Your task to perform on an android device: toggle location history Image 0: 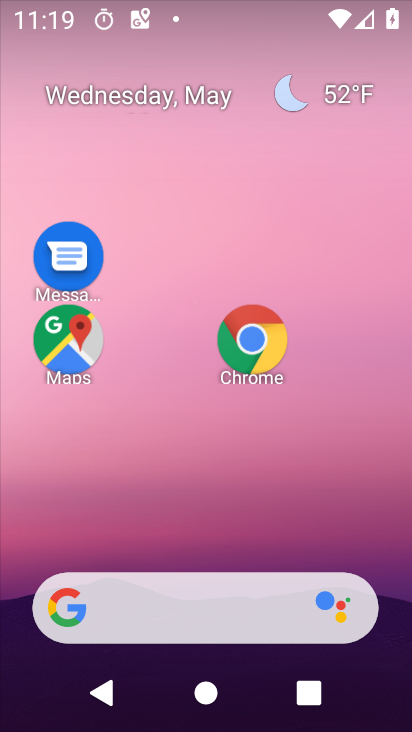
Step 0: drag from (210, 520) to (196, 38)
Your task to perform on an android device: toggle location history Image 1: 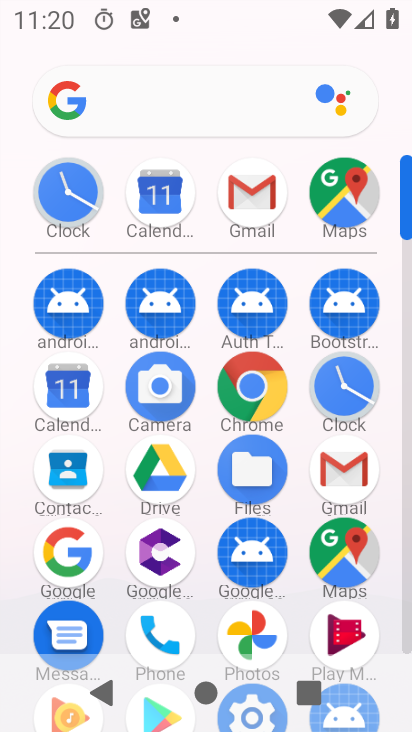
Step 1: drag from (203, 551) to (214, 248)
Your task to perform on an android device: toggle location history Image 2: 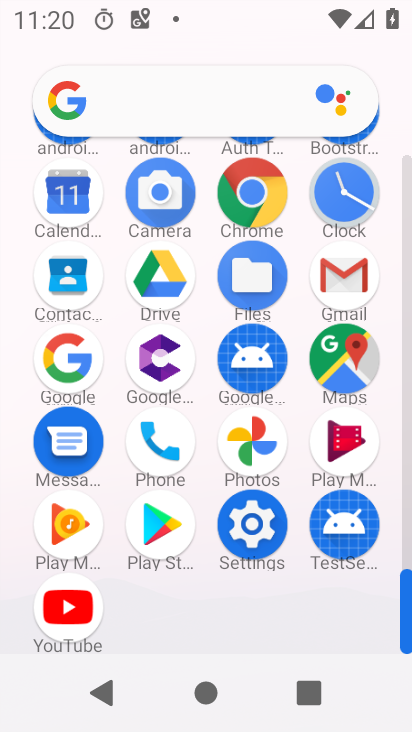
Step 2: click (248, 528)
Your task to perform on an android device: toggle location history Image 3: 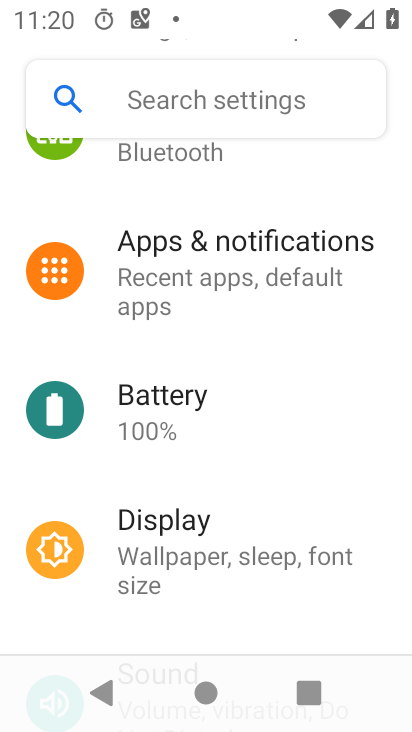
Step 3: drag from (233, 564) to (224, 97)
Your task to perform on an android device: toggle location history Image 4: 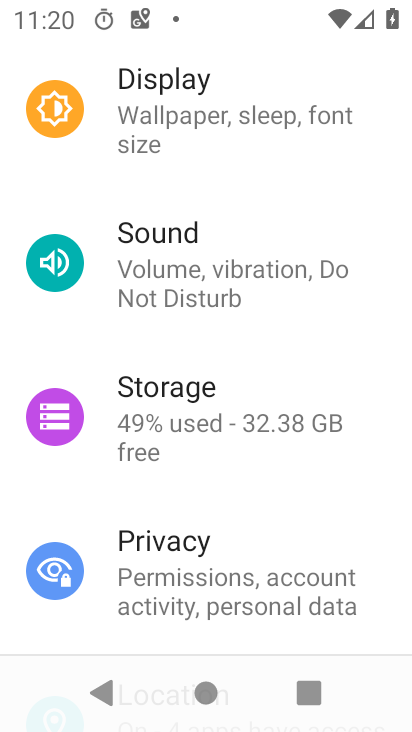
Step 4: drag from (232, 564) to (225, 241)
Your task to perform on an android device: toggle location history Image 5: 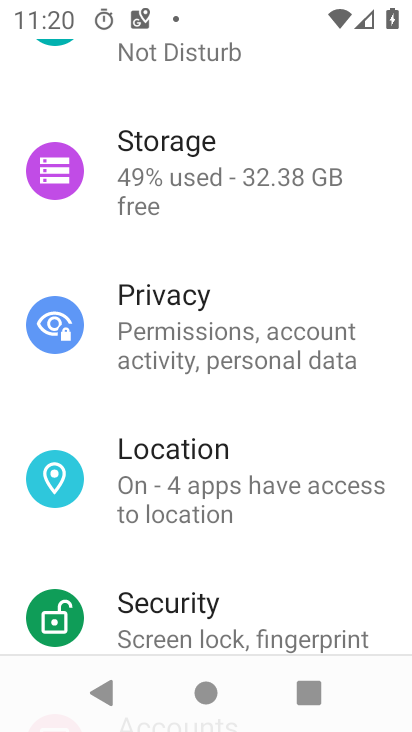
Step 5: click (180, 463)
Your task to perform on an android device: toggle location history Image 6: 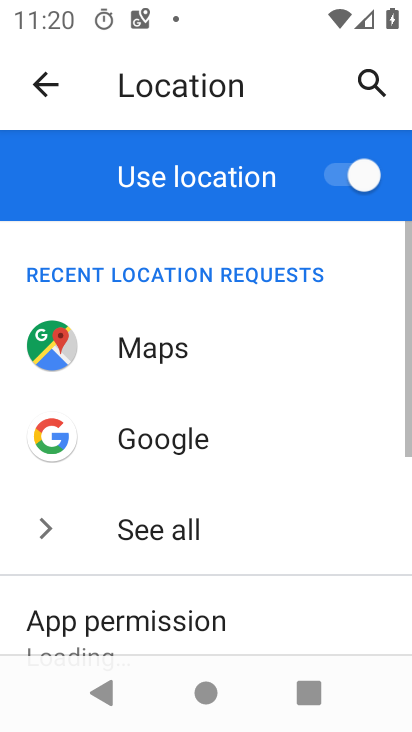
Step 6: drag from (275, 569) to (267, 169)
Your task to perform on an android device: toggle location history Image 7: 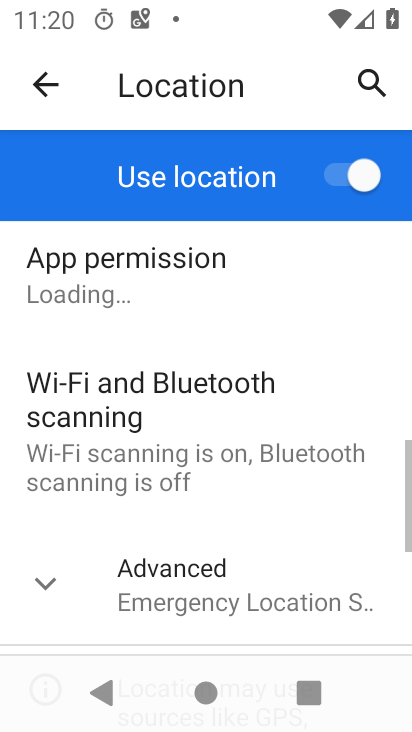
Step 7: drag from (250, 607) to (237, 356)
Your task to perform on an android device: toggle location history Image 8: 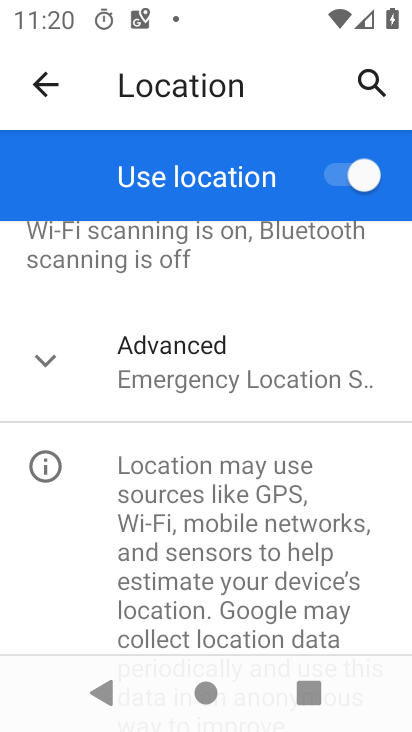
Step 8: click (163, 358)
Your task to perform on an android device: toggle location history Image 9: 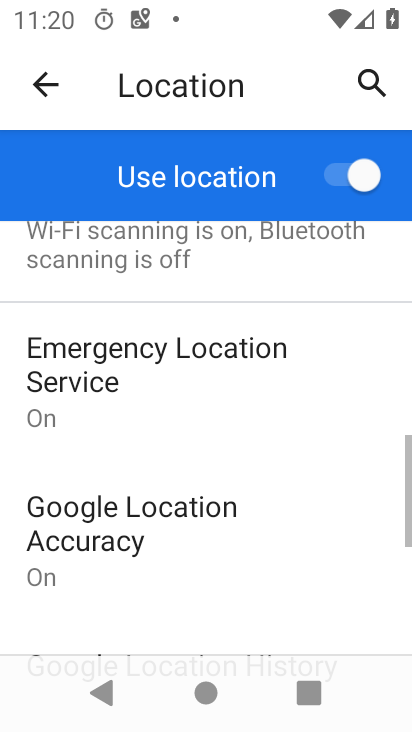
Step 9: drag from (251, 577) to (274, 297)
Your task to perform on an android device: toggle location history Image 10: 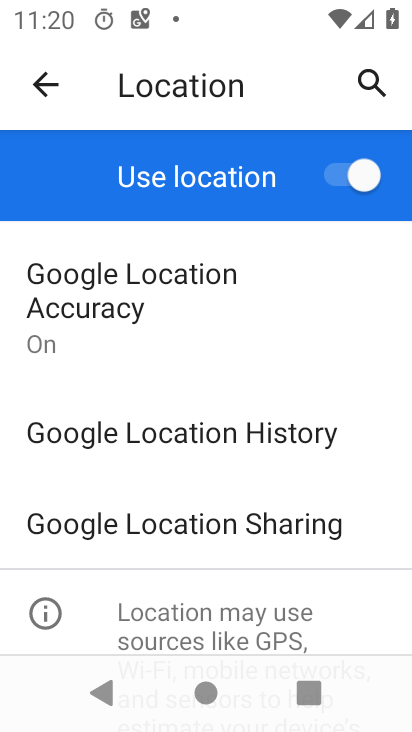
Step 10: click (182, 436)
Your task to perform on an android device: toggle location history Image 11: 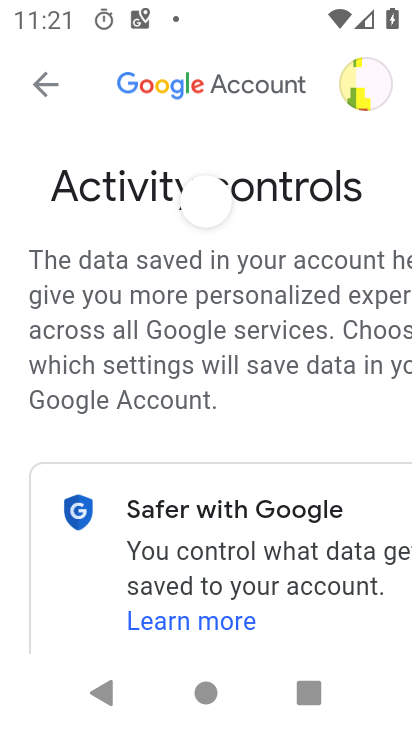
Step 11: drag from (262, 584) to (280, 133)
Your task to perform on an android device: toggle location history Image 12: 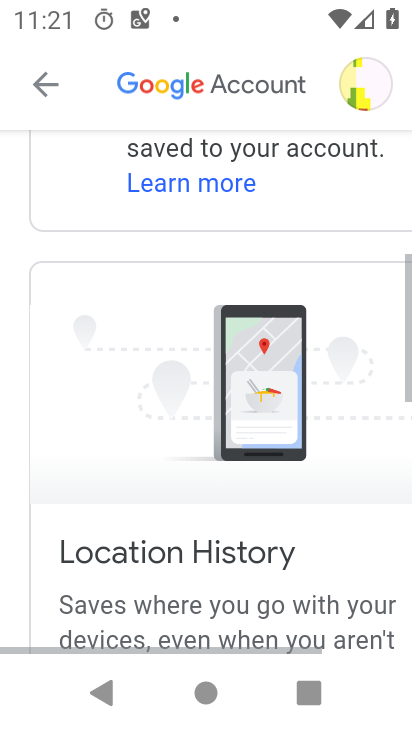
Step 12: drag from (244, 609) to (257, 210)
Your task to perform on an android device: toggle location history Image 13: 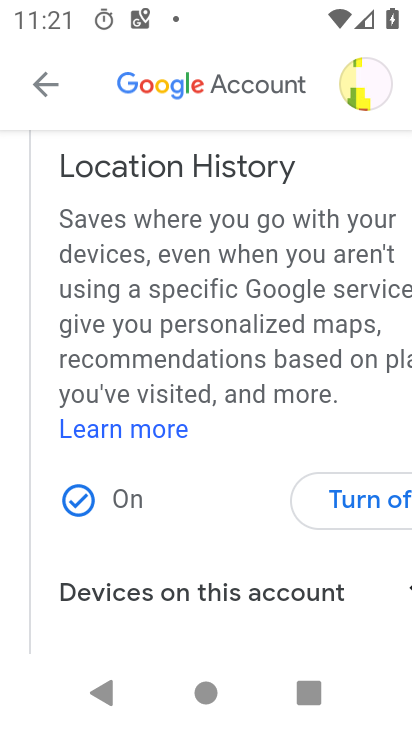
Step 13: click (363, 499)
Your task to perform on an android device: toggle location history Image 14: 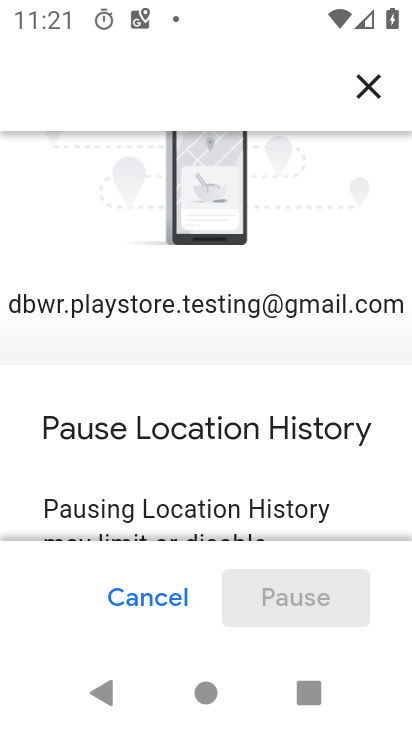
Step 14: drag from (318, 513) to (305, 39)
Your task to perform on an android device: toggle location history Image 15: 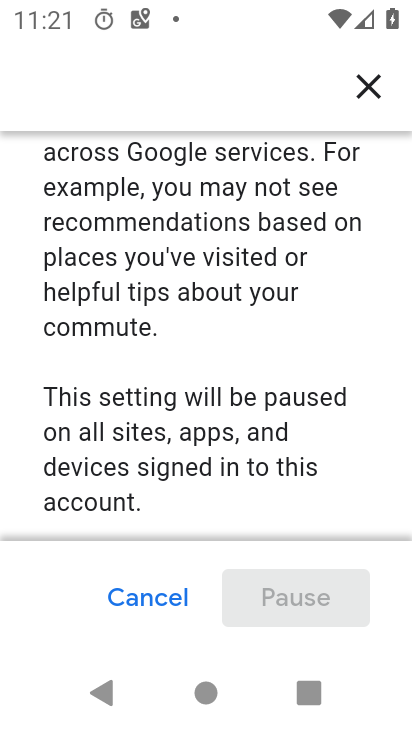
Step 15: drag from (327, 463) to (286, 34)
Your task to perform on an android device: toggle location history Image 16: 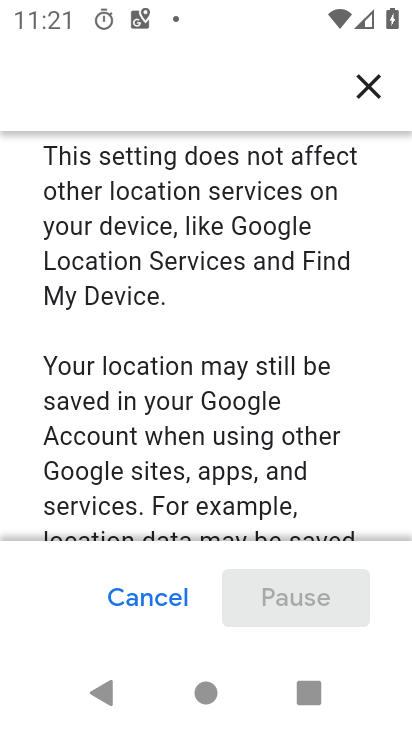
Step 16: drag from (298, 477) to (314, 91)
Your task to perform on an android device: toggle location history Image 17: 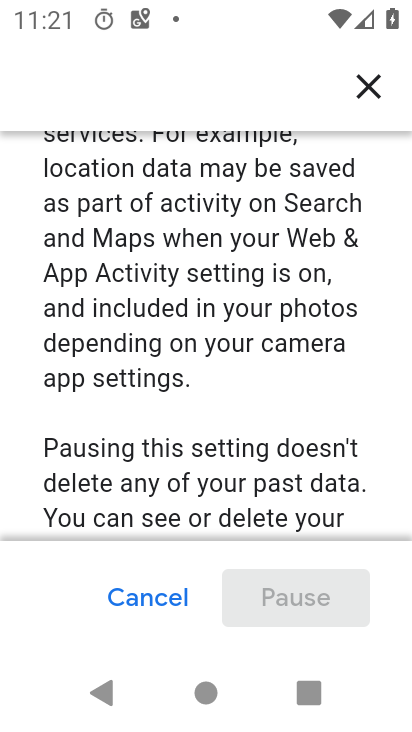
Step 17: drag from (295, 495) to (293, 145)
Your task to perform on an android device: toggle location history Image 18: 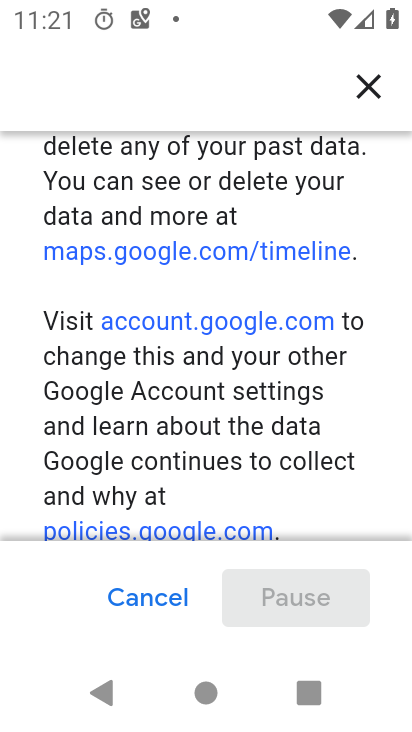
Step 18: drag from (306, 468) to (303, 171)
Your task to perform on an android device: toggle location history Image 19: 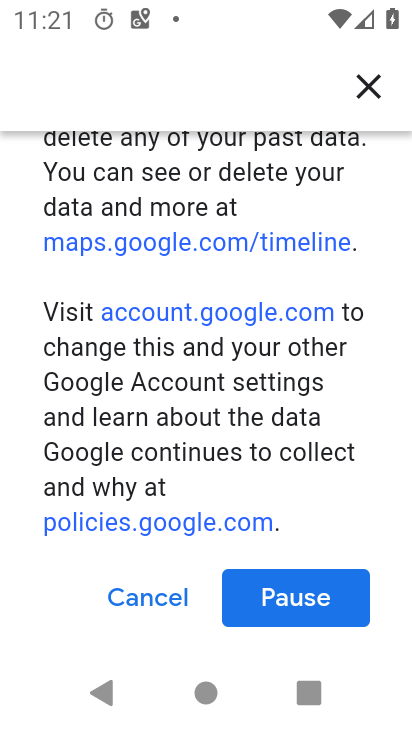
Step 19: click (275, 601)
Your task to perform on an android device: toggle location history Image 20: 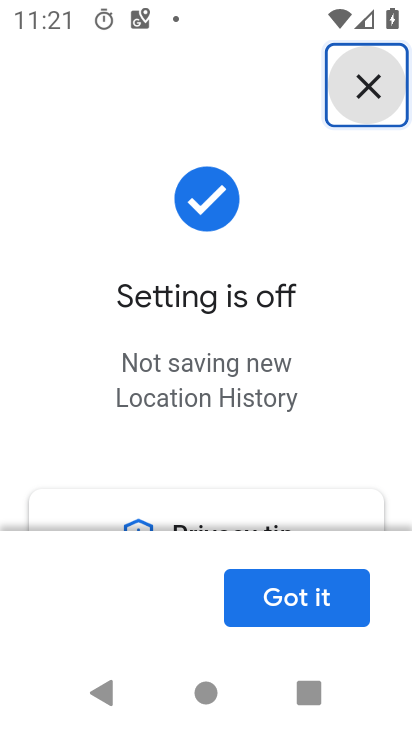
Step 20: click (275, 601)
Your task to perform on an android device: toggle location history Image 21: 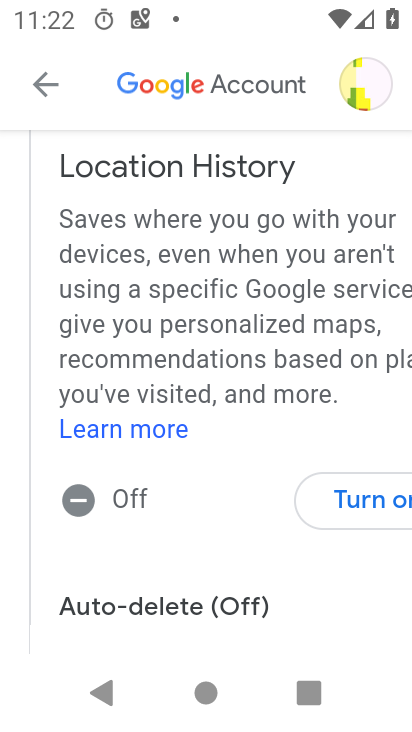
Step 21: task complete